Your task to perform on an android device: Open Google Chrome and open the bookmarks view Image 0: 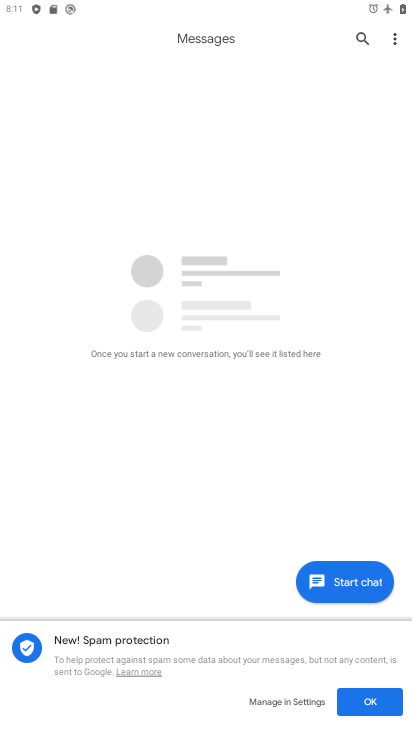
Step 0: press home button
Your task to perform on an android device: Open Google Chrome and open the bookmarks view Image 1: 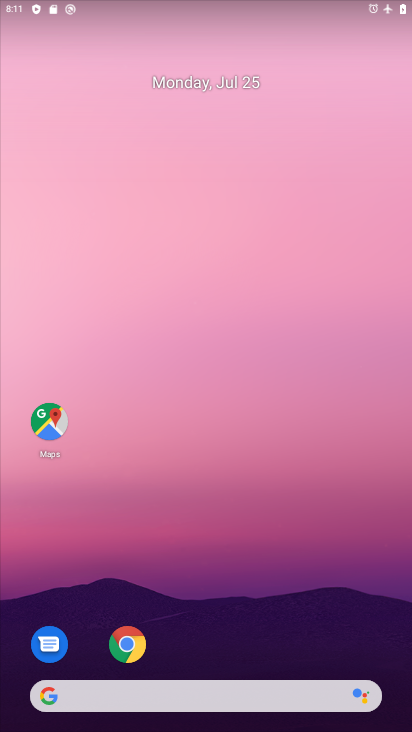
Step 1: click (130, 646)
Your task to perform on an android device: Open Google Chrome and open the bookmarks view Image 2: 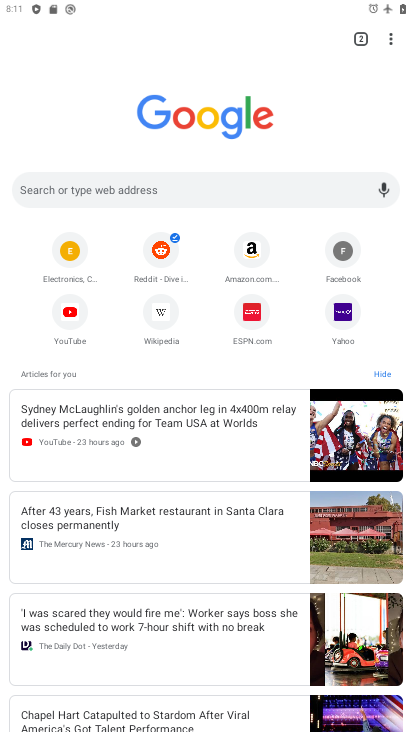
Step 2: click (390, 36)
Your task to perform on an android device: Open Google Chrome and open the bookmarks view Image 3: 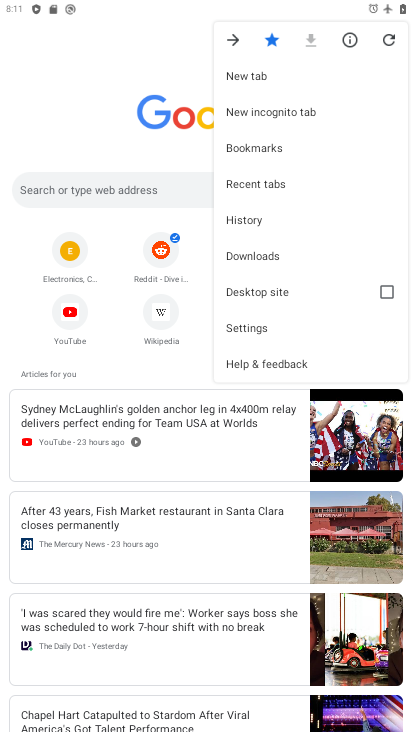
Step 3: click (248, 154)
Your task to perform on an android device: Open Google Chrome and open the bookmarks view Image 4: 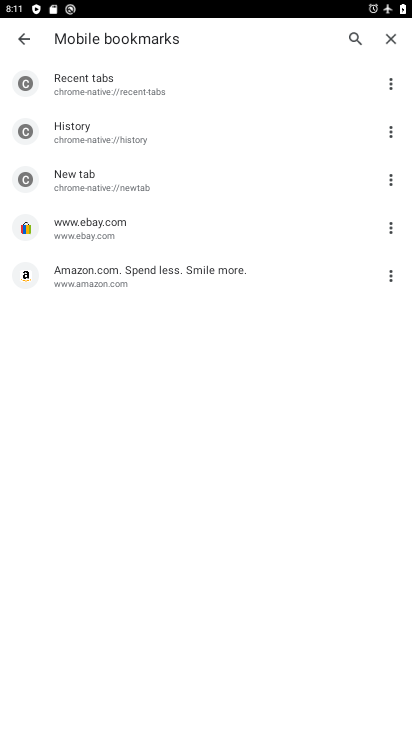
Step 4: task complete